Your task to perform on an android device: Is it going to rain today? Image 0: 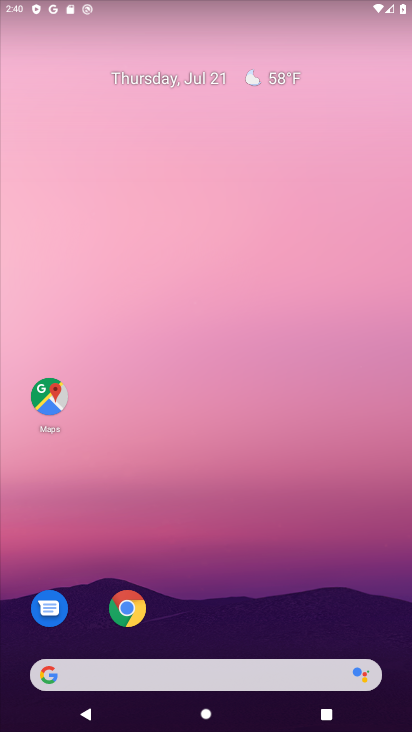
Step 0: press home button
Your task to perform on an android device: Is it going to rain today? Image 1: 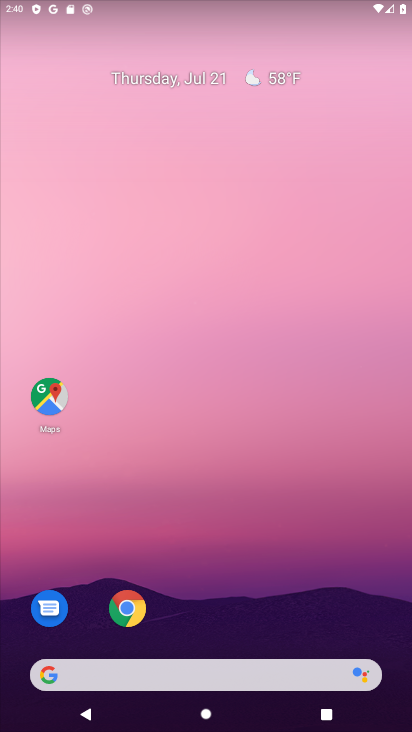
Step 1: click (207, 666)
Your task to perform on an android device: Is it going to rain today? Image 2: 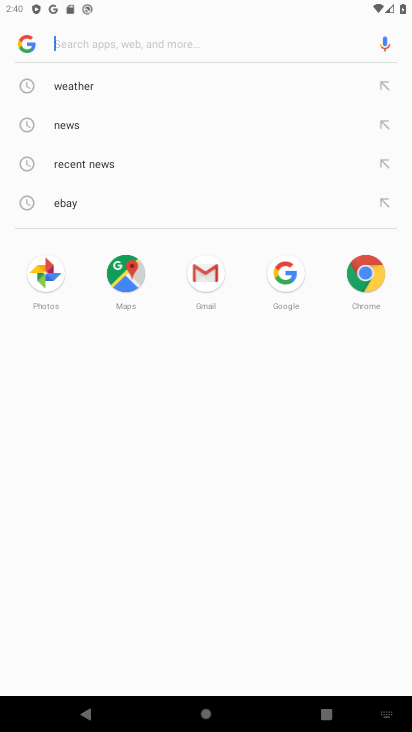
Step 2: click (99, 82)
Your task to perform on an android device: Is it going to rain today? Image 3: 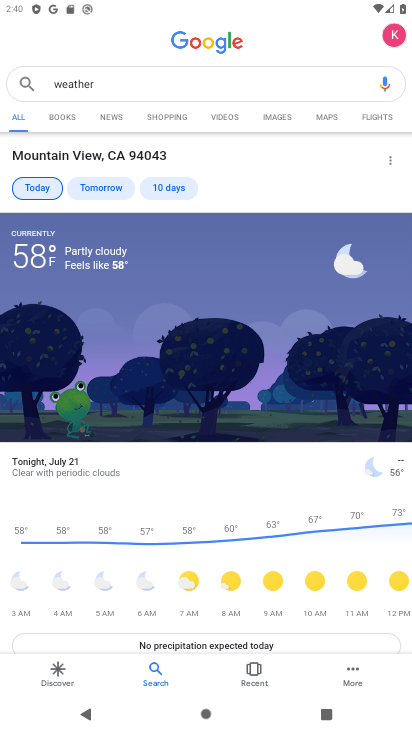
Step 3: task complete